Your task to perform on an android device: open app "VLC for Android" Image 0: 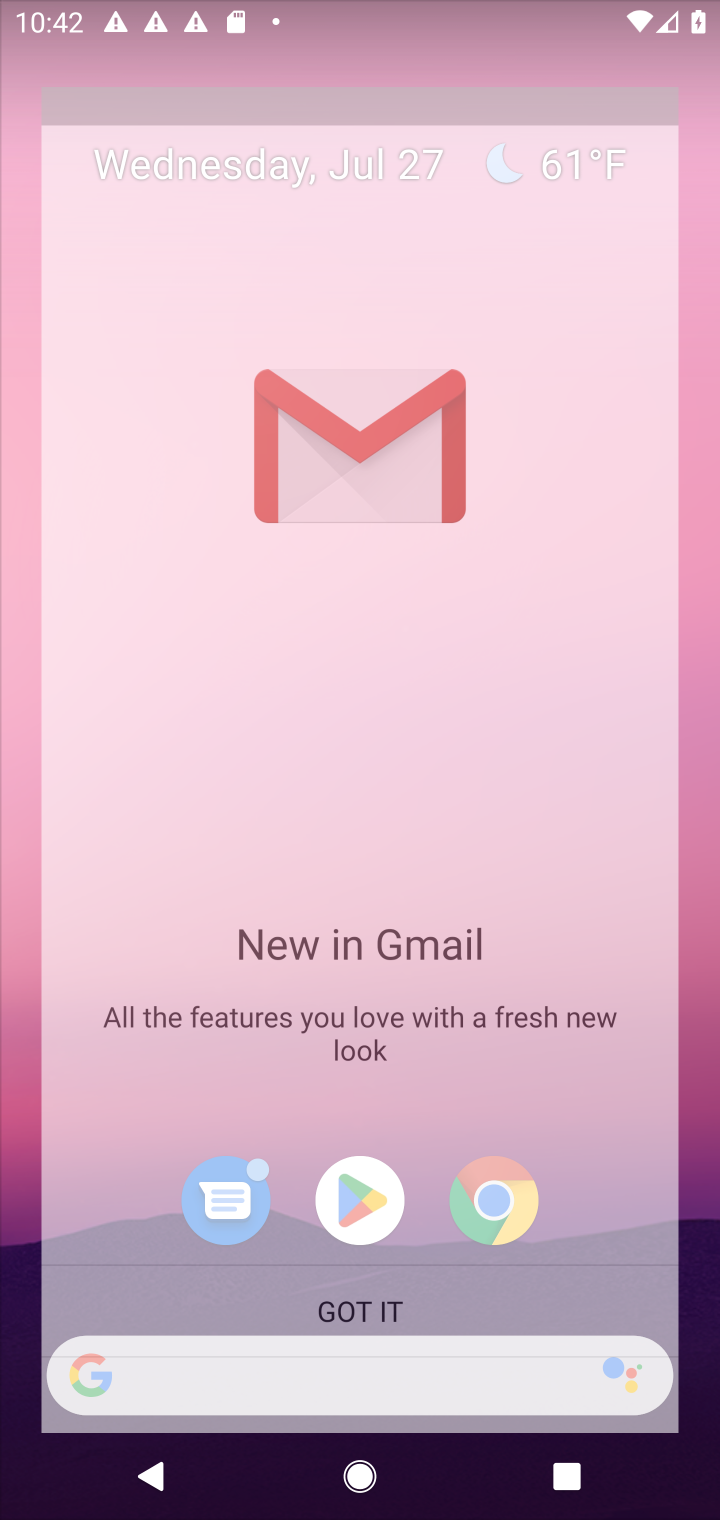
Step 0: press home button
Your task to perform on an android device: open app "VLC for Android" Image 1: 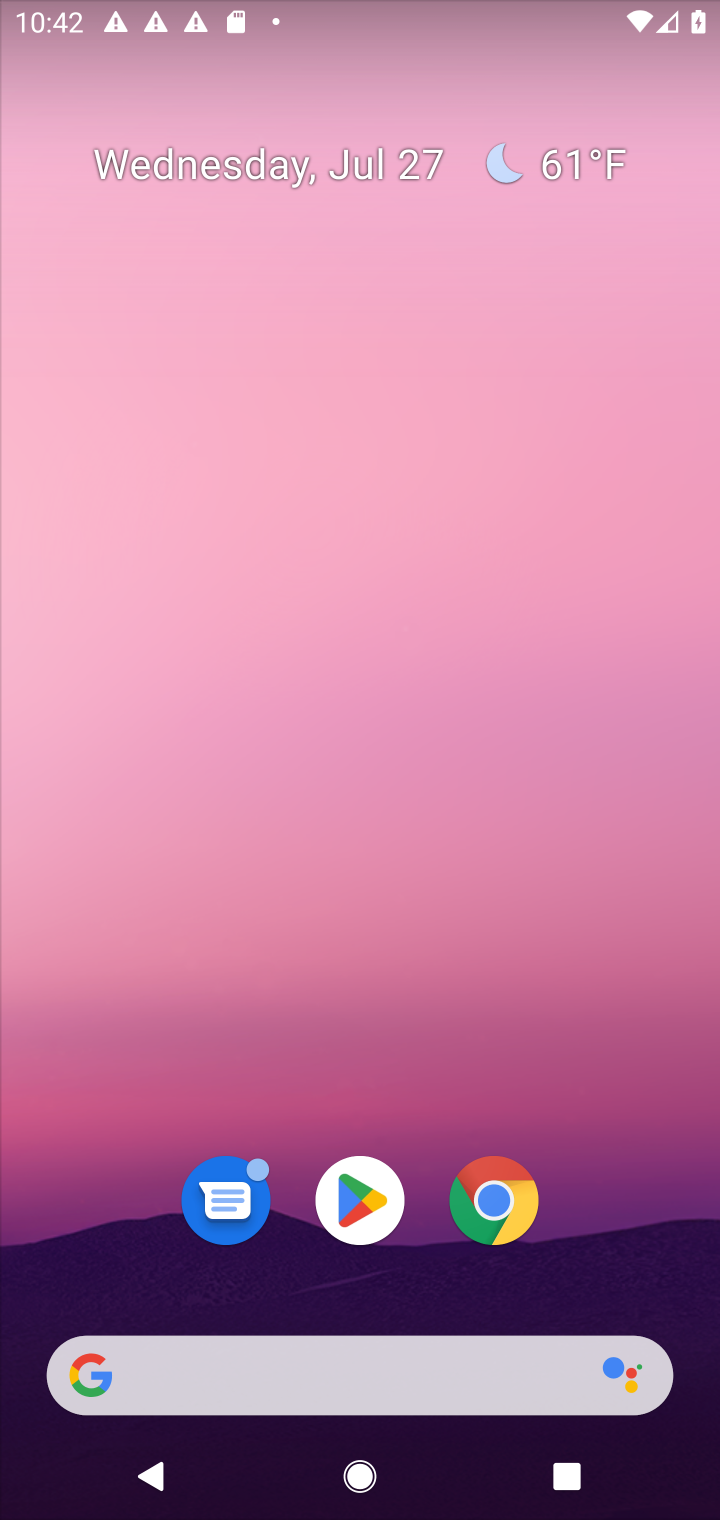
Step 1: task complete